Your task to perform on an android device: Open privacy settings Image 0: 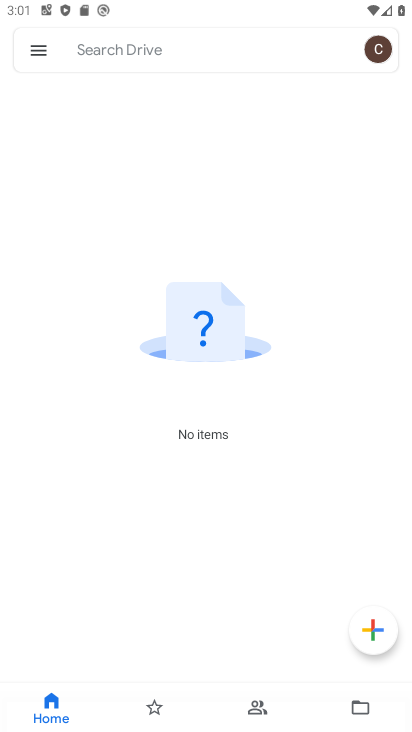
Step 0: press home button
Your task to perform on an android device: Open privacy settings Image 1: 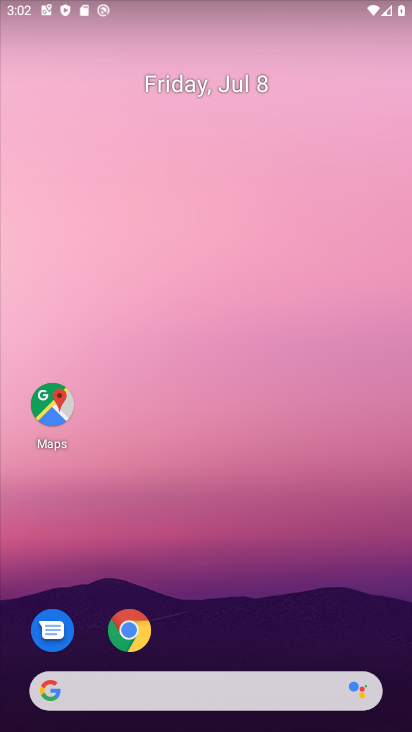
Step 1: drag from (276, 599) to (259, 218)
Your task to perform on an android device: Open privacy settings Image 2: 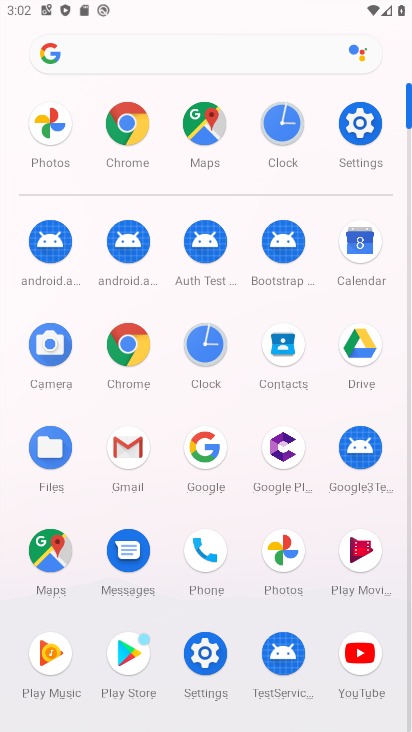
Step 2: click (128, 151)
Your task to perform on an android device: Open privacy settings Image 3: 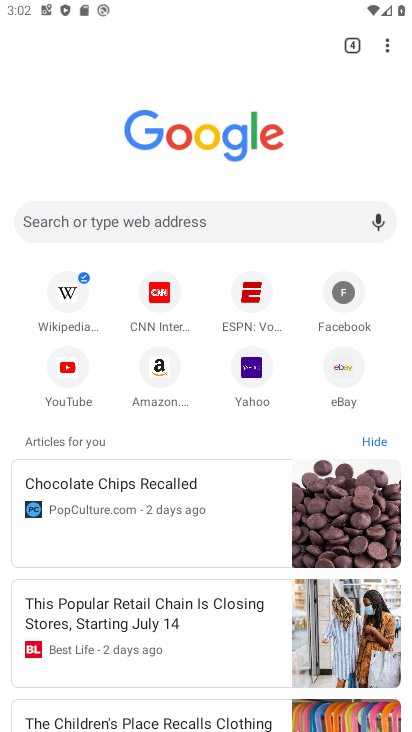
Step 3: click (387, 51)
Your task to perform on an android device: Open privacy settings Image 4: 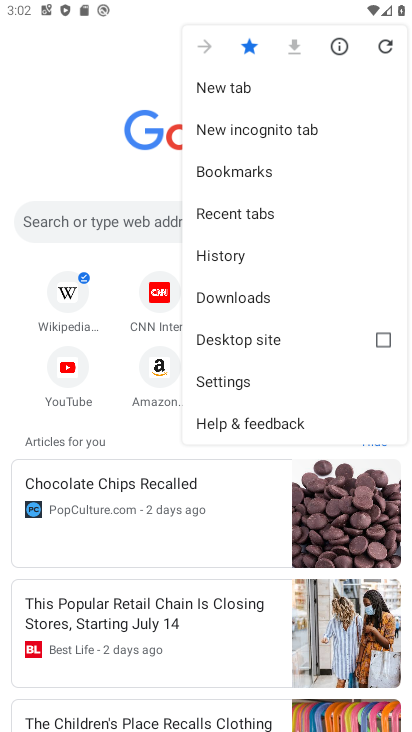
Step 4: click (271, 372)
Your task to perform on an android device: Open privacy settings Image 5: 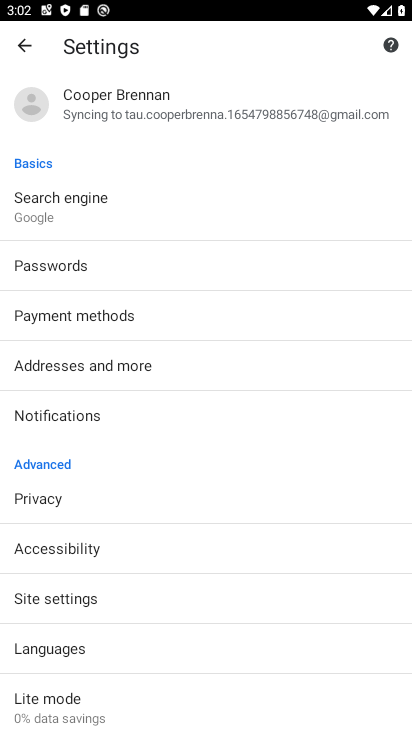
Step 5: click (121, 510)
Your task to perform on an android device: Open privacy settings Image 6: 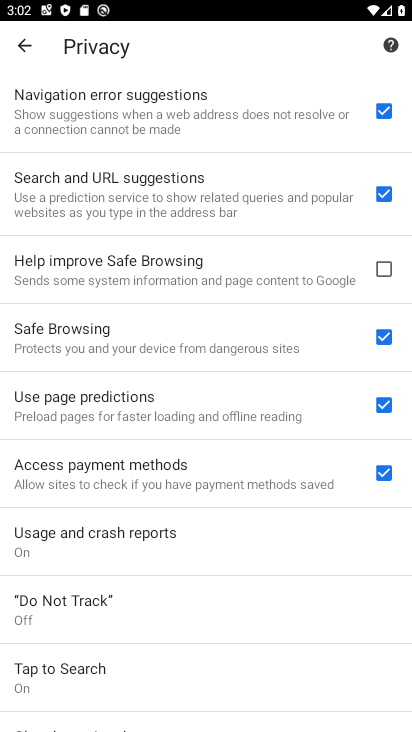
Step 6: task complete